Your task to perform on an android device: turn on the 12-hour format for clock Image 0: 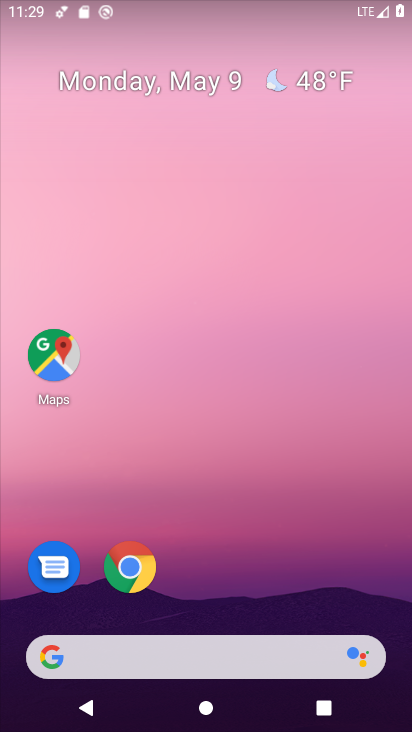
Step 0: drag from (224, 562) to (242, 219)
Your task to perform on an android device: turn on the 12-hour format for clock Image 1: 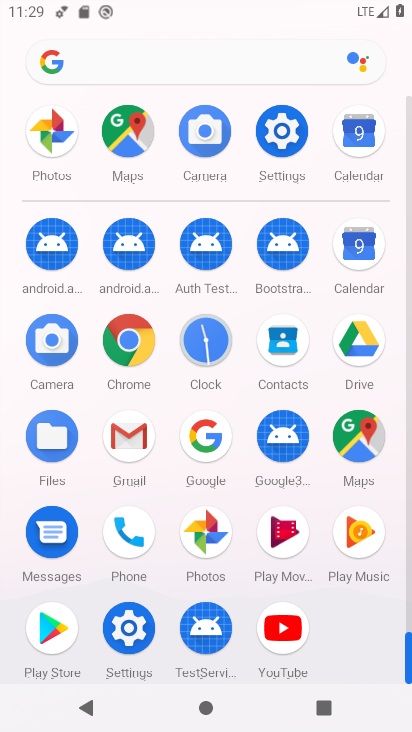
Step 1: click (228, 343)
Your task to perform on an android device: turn on the 12-hour format for clock Image 2: 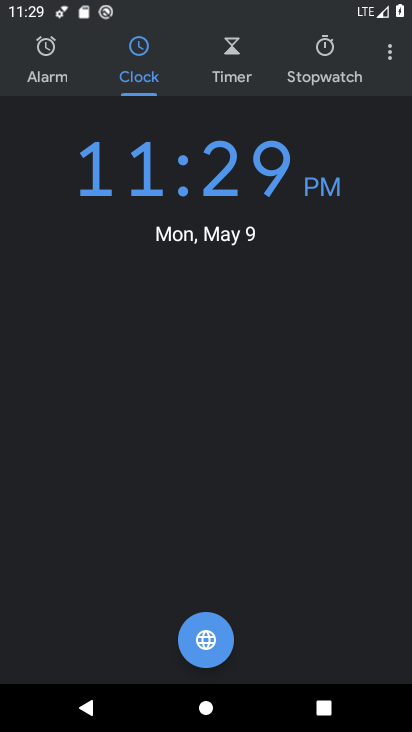
Step 2: press home button
Your task to perform on an android device: turn on the 12-hour format for clock Image 3: 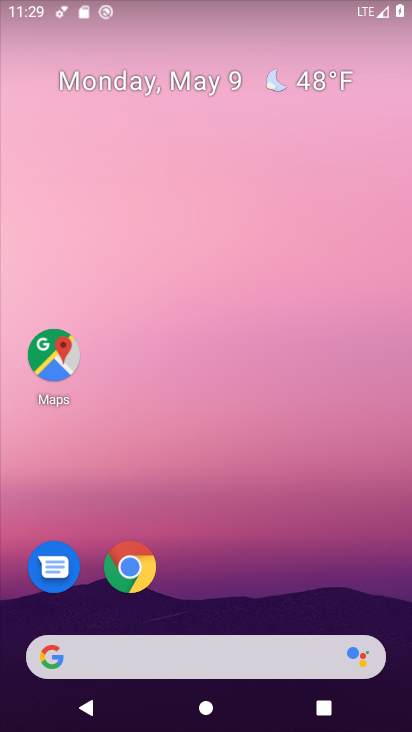
Step 3: drag from (222, 587) to (306, 42)
Your task to perform on an android device: turn on the 12-hour format for clock Image 4: 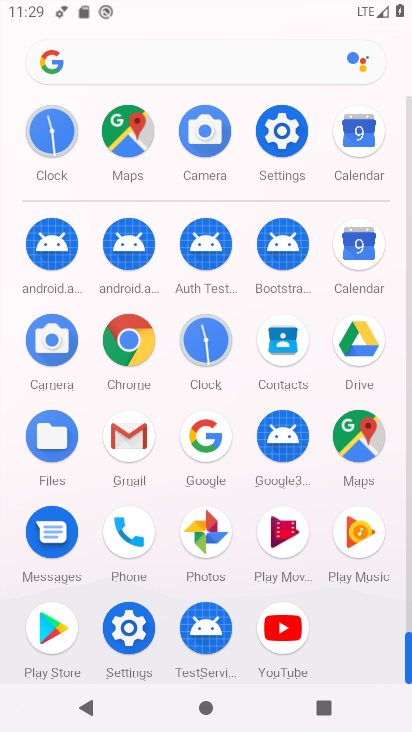
Step 4: click (134, 643)
Your task to perform on an android device: turn on the 12-hour format for clock Image 5: 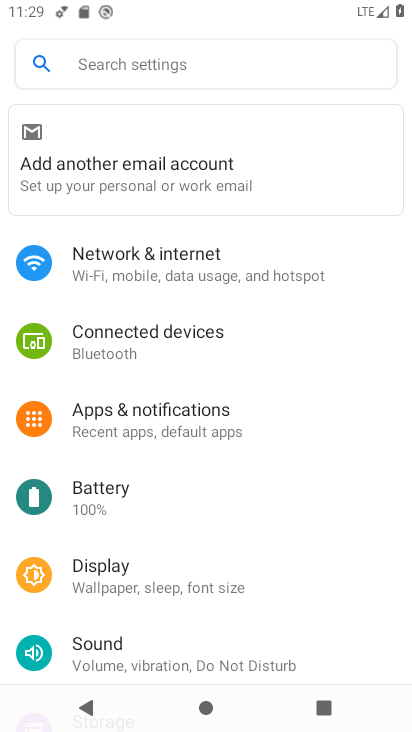
Step 5: drag from (150, 611) to (233, 154)
Your task to perform on an android device: turn on the 12-hour format for clock Image 6: 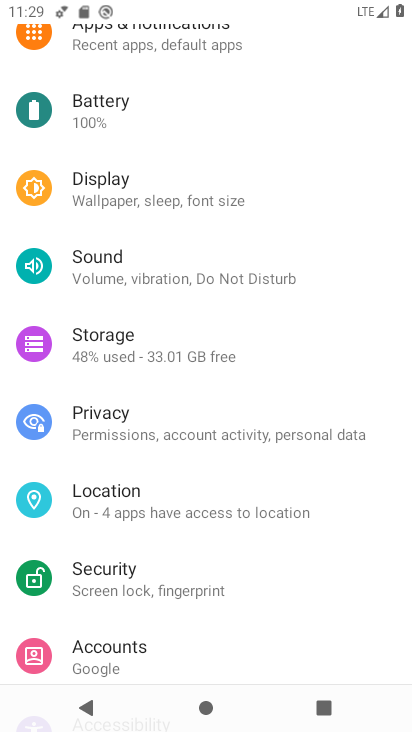
Step 6: drag from (191, 564) to (262, 244)
Your task to perform on an android device: turn on the 12-hour format for clock Image 7: 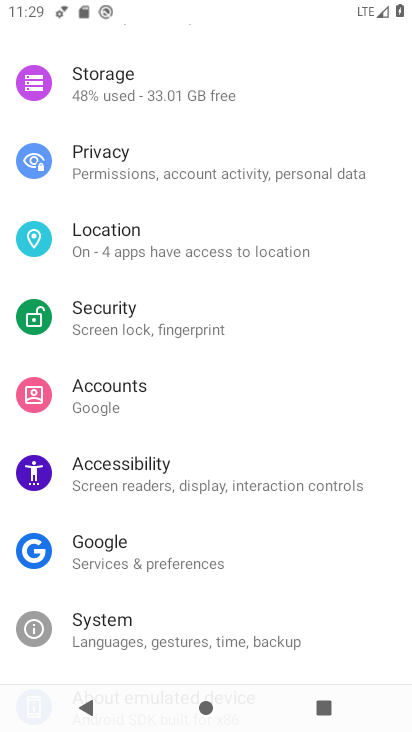
Step 7: drag from (187, 513) to (210, 401)
Your task to perform on an android device: turn on the 12-hour format for clock Image 8: 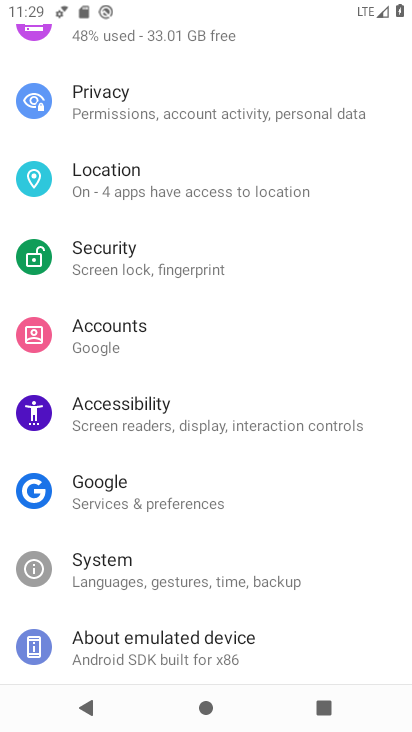
Step 8: click (120, 571)
Your task to perform on an android device: turn on the 12-hour format for clock Image 9: 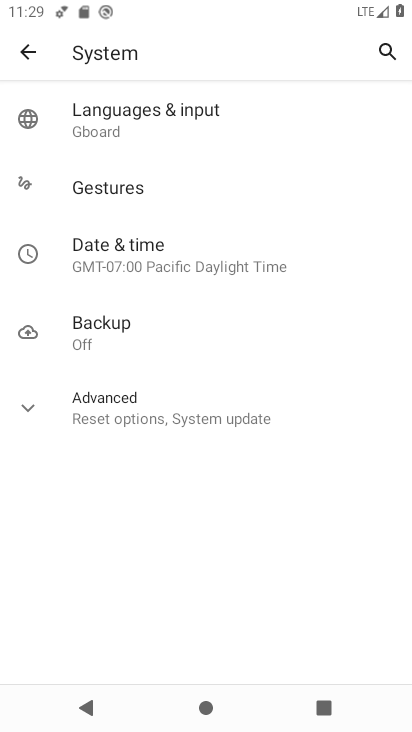
Step 9: click (218, 269)
Your task to perform on an android device: turn on the 12-hour format for clock Image 10: 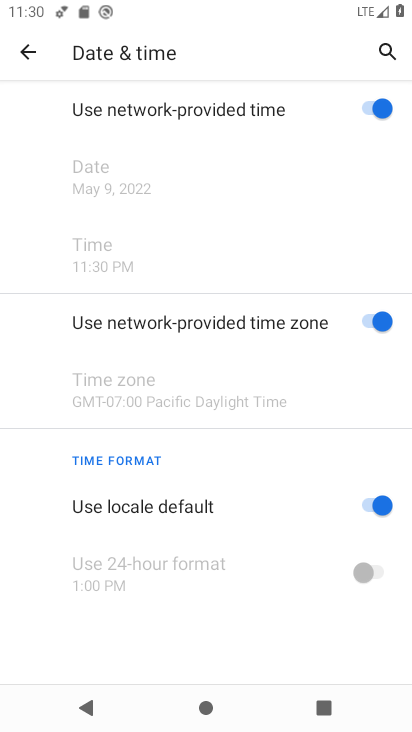
Step 10: task complete